Your task to perform on an android device: turn on priority inbox in the gmail app Image 0: 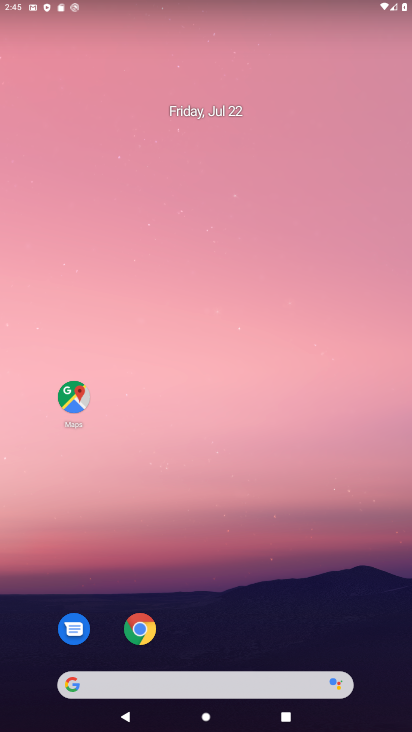
Step 0: drag from (209, 629) to (127, 105)
Your task to perform on an android device: turn on priority inbox in the gmail app Image 1: 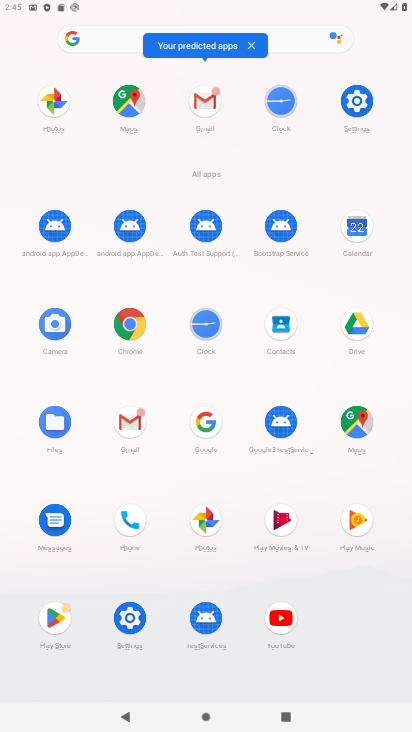
Step 1: click (205, 100)
Your task to perform on an android device: turn on priority inbox in the gmail app Image 2: 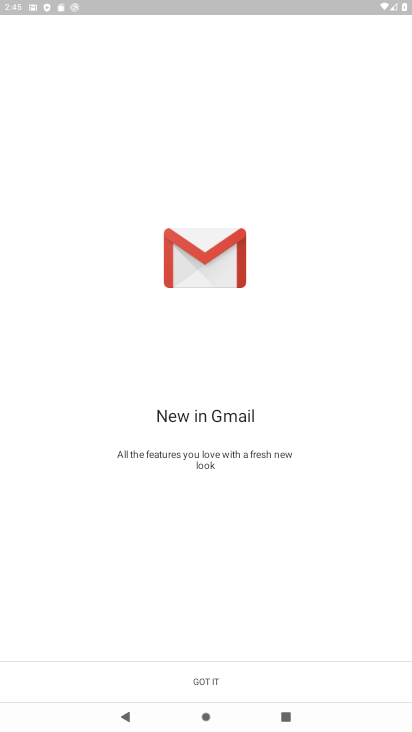
Step 2: click (214, 681)
Your task to perform on an android device: turn on priority inbox in the gmail app Image 3: 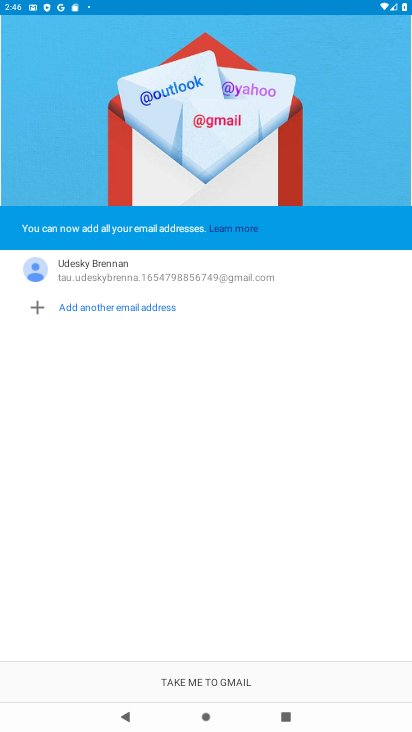
Step 3: click (214, 681)
Your task to perform on an android device: turn on priority inbox in the gmail app Image 4: 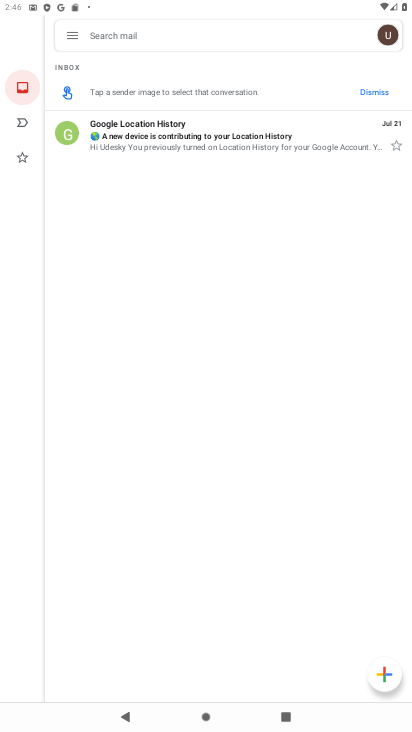
Step 4: click (78, 35)
Your task to perform on an android device: turn on priority inbox in the gmail app Image 5: 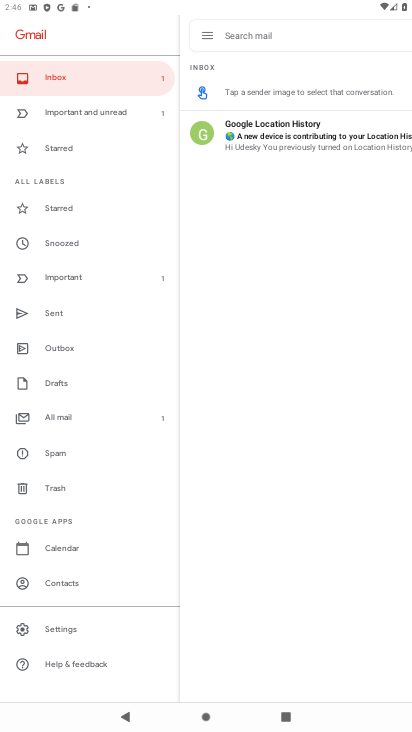
Step 5: click (87, 626)
Your task to perform on an android device: turn on priority inbox in the gmail app Image 6: 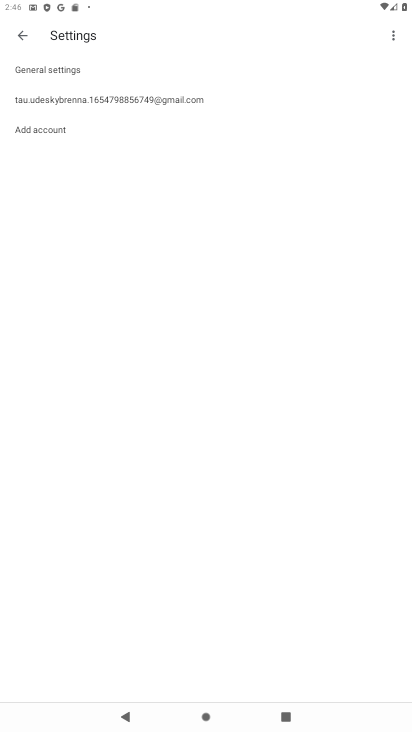
Step 6: click (170, 103)
Your task to perform on an android device: turn on priority inbox in the gmail app Image 7: 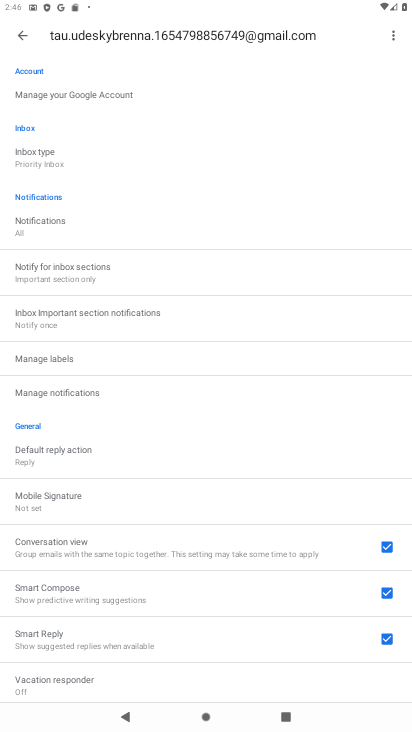
Step 7: click (73, 165)
Your task to perform on an android device: turn on priority inbox in the gmail app Image 8: 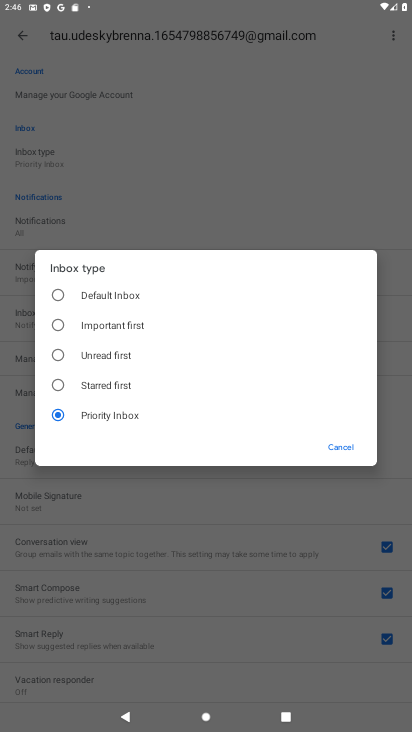
Step 8: task complete